Your task to perform on an android device: toggle notification dots Image 0: 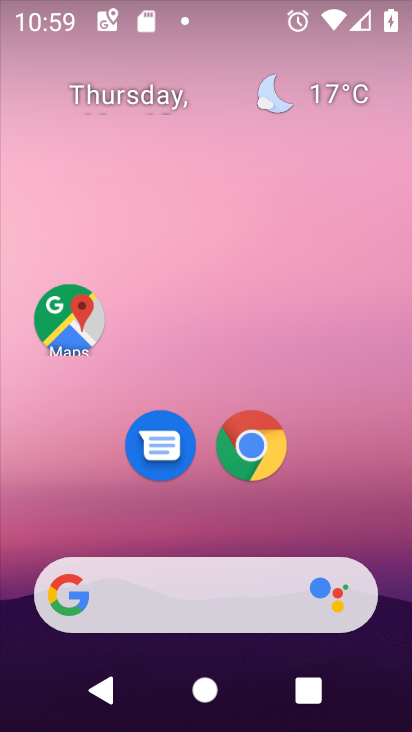
Step 0: drag from (169, 513) to (251, 184)
Your task to perform on an android device: toggle notification dots Image 1: 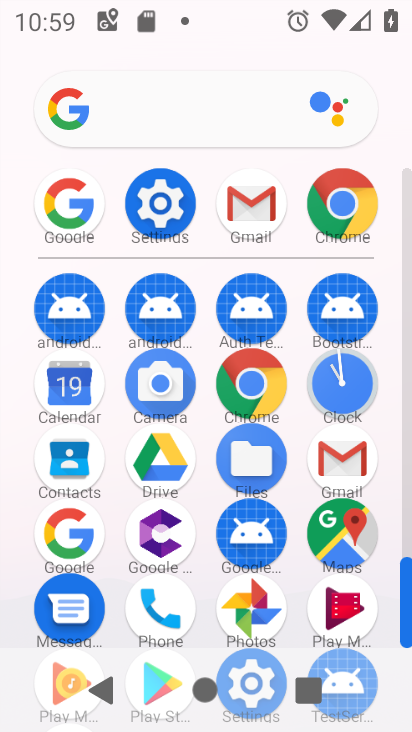
Step 1: click (174, 219)
Your task to perform on an android device: toggle notification dots Image 2: 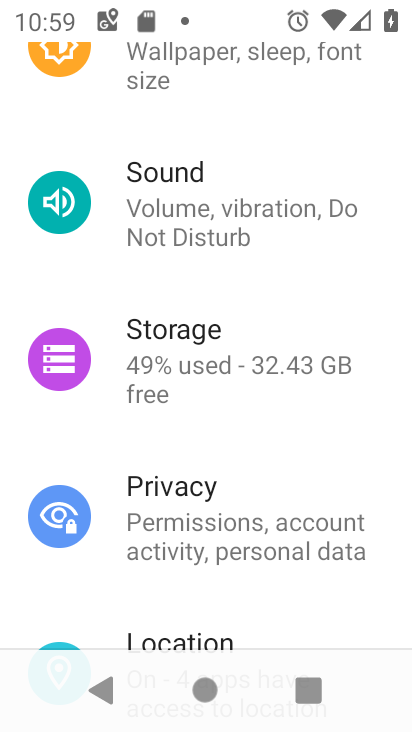
Step 2: click (355, 642)
Your task to perform on an android device: toggle notification dots Image 3: 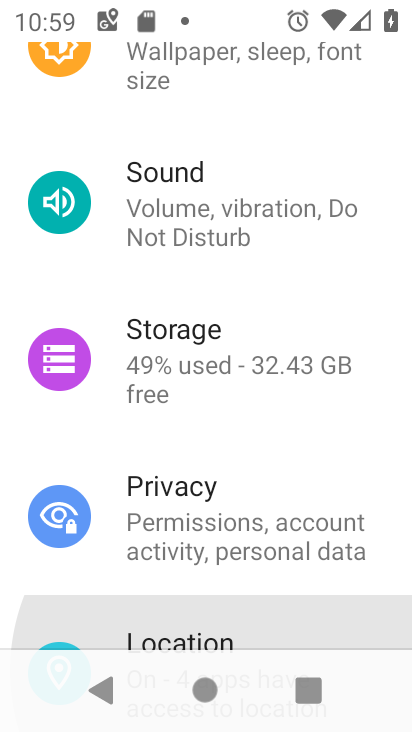
Step 3: click (249, 665)
Your task to perform on an android device: toggle notification dots Image 4: 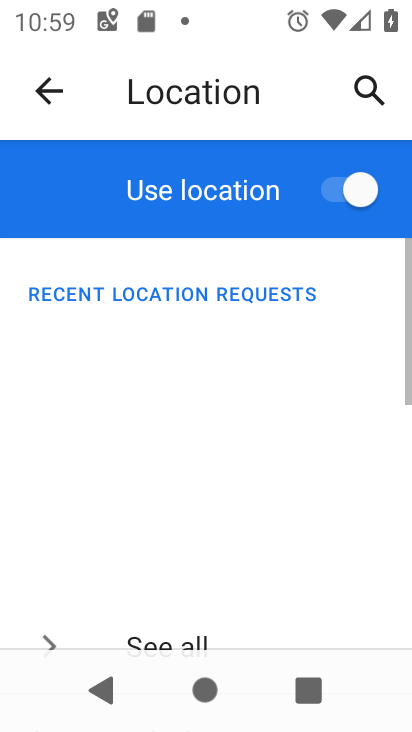
Step 4: drag from (235, 594) to (227, 433)
Your task to perform on an android device: toggle notification dots Image 5: 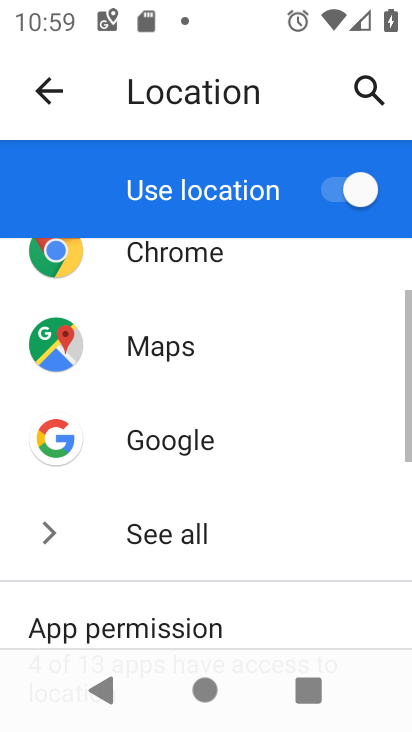
Step 5: press back button
Your task to perform on an android device: toggle notification dots Image 6: 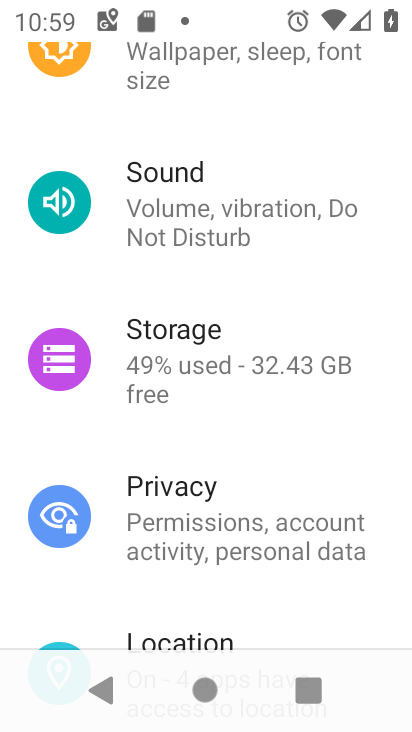
Step 6: drag from (252, 275) to (248, 575)
Your task to perform on an android device: toggle notification dots Image 7: 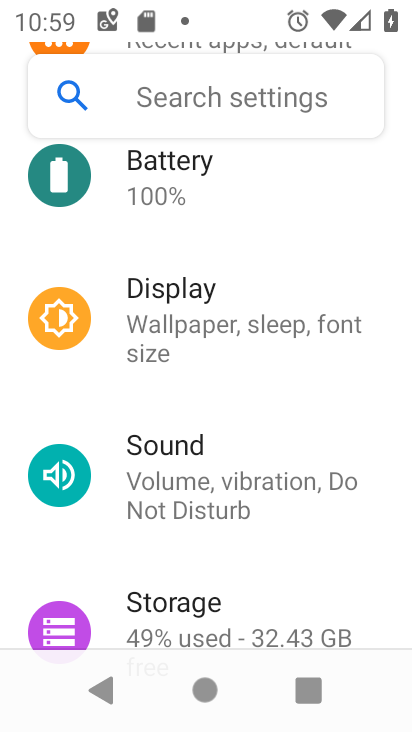
Step 7: drag from (268, 280) to (266, 631)
Your task to perform on an android device: toggle notification dots Image 8: 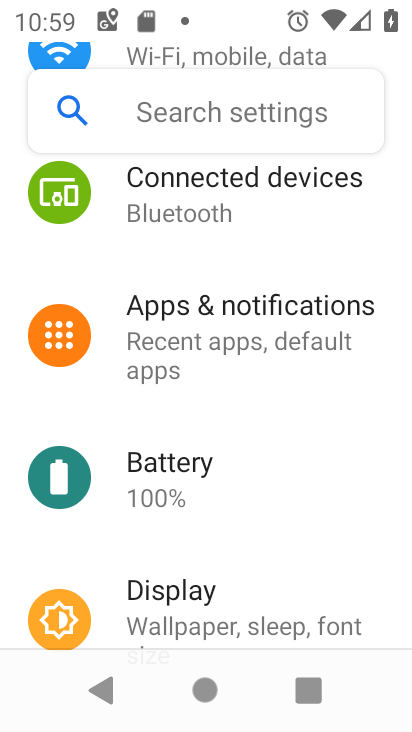
Step 8: drag from (245, 314) to (241, 670)
Your task to perform on an android device: toggle notification dots Image 9: 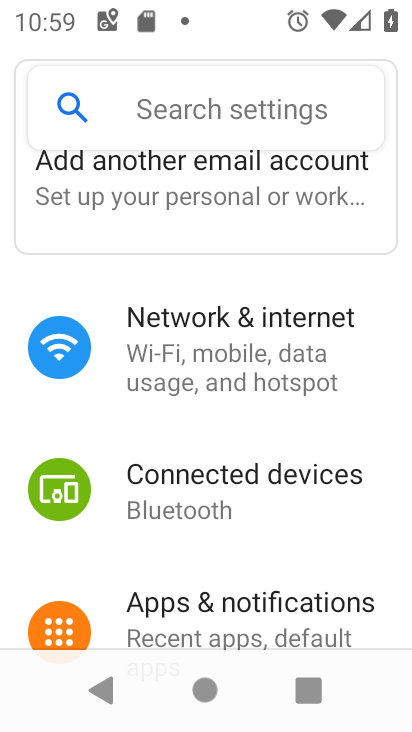
Step 9: click (244, 610)
Your task to perform on an android device: toggle notification dots Image 10: 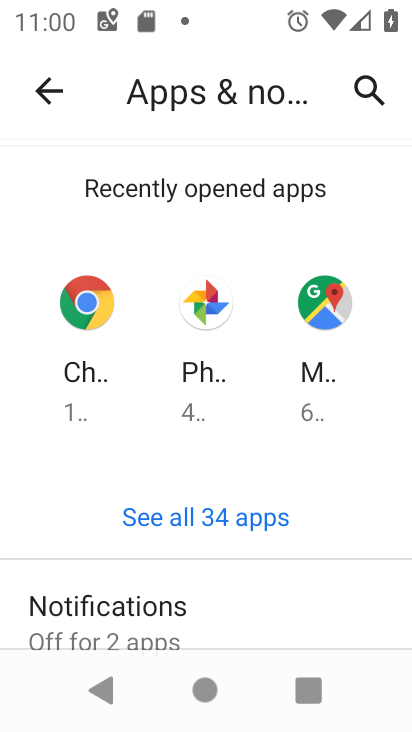
Step 10: click (243, 608)
Your task to perform on an android device: toggle notification dots Image 11: 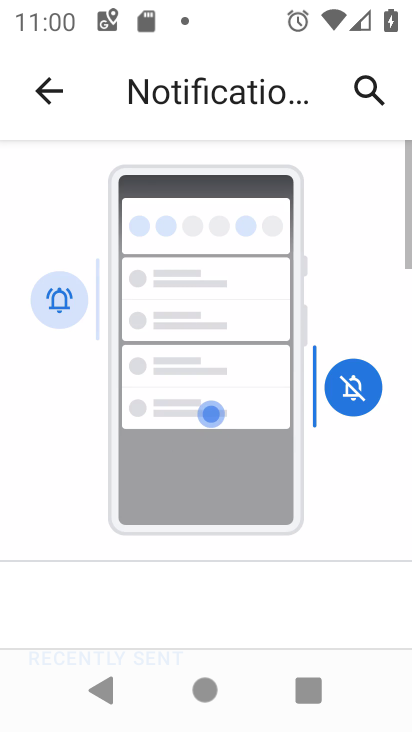
Step 11: drag from (274, 533) to (307, 0)
Your task to perform on an android device: toggle notification dots Image 12: 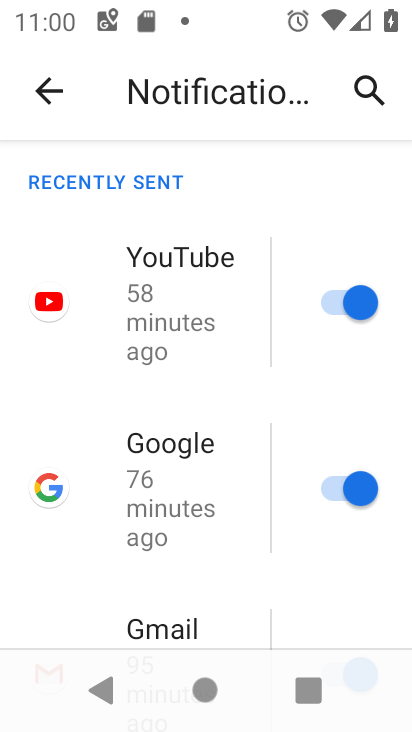
Step 12: drag from (310, 583) to (286, 43)
Your task to perform on an android device: toggle notification dots Image 13: 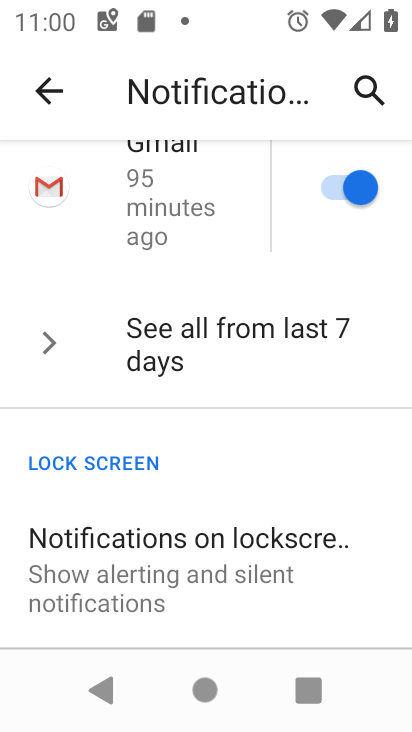
Step 13: drag from (260, 543) to (248, 92)
Your task to perform on an android device: toggle notification dots Image 14: 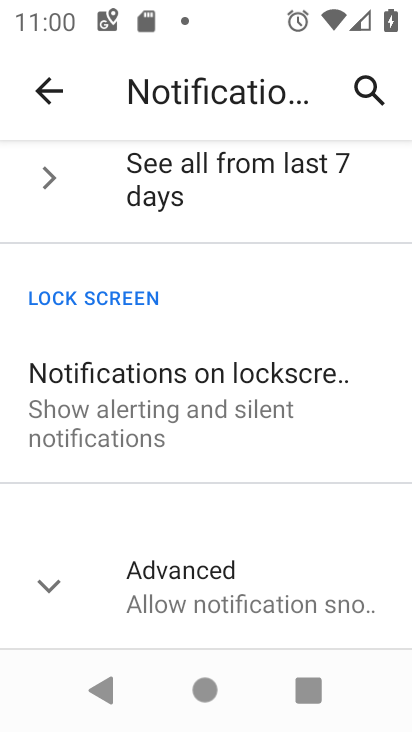
Step 14: click (240, 617)
Your task to perform on an android device: toggle notification dots Image 15: 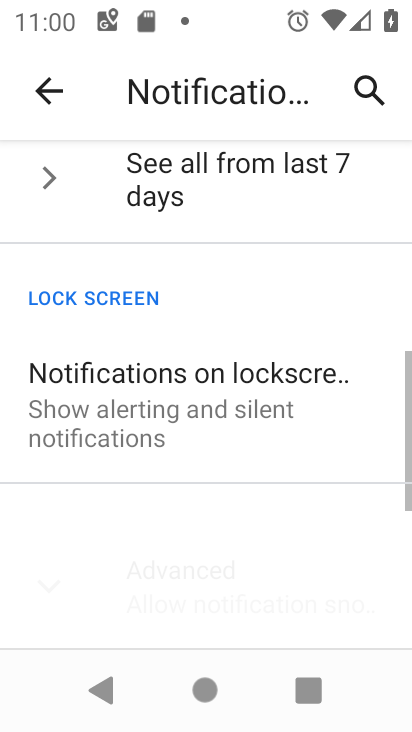
Step 15: drag from (245, 580) to (246, 103)
Your task to perform on an android device: toggle notification dots Image 16: 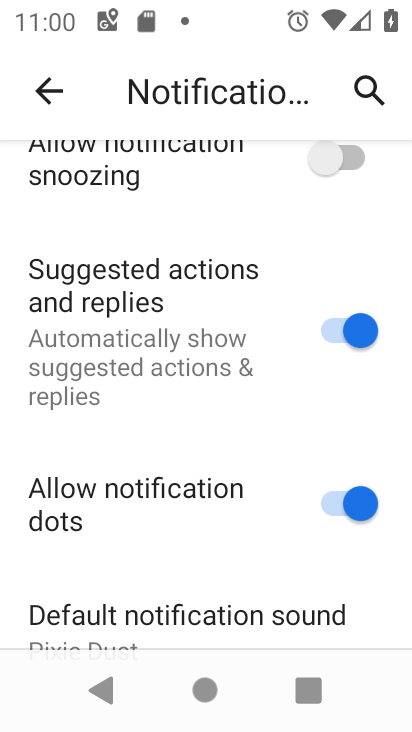
Step 16: click (340, 514)
Your task to perform on an android device: toggle notification dots Image 17: 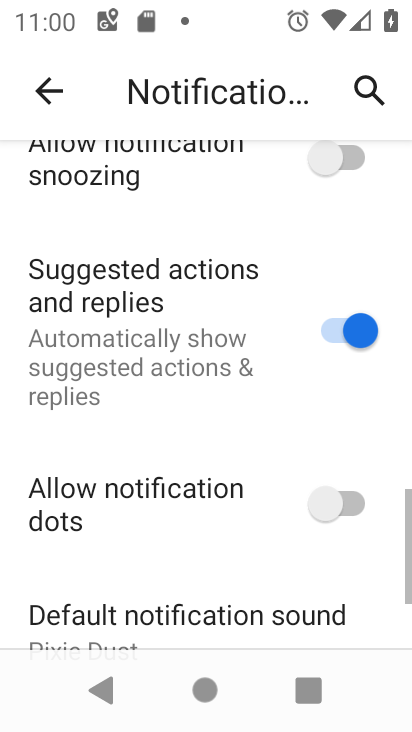
Step 17: task complete